Your task to perform on an android device: turn off priority inbox in the gmail app Image 0: 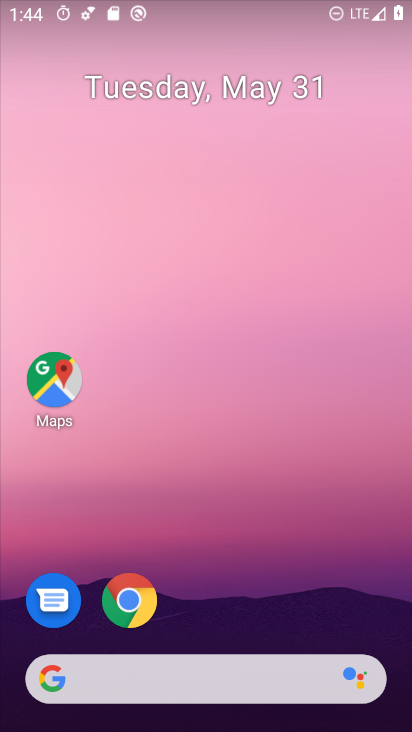
Step 0: drag from (199, 724) to (170, 211)
Your task to perform on an android device: turn off priority inbox in the gmail app Image 1: 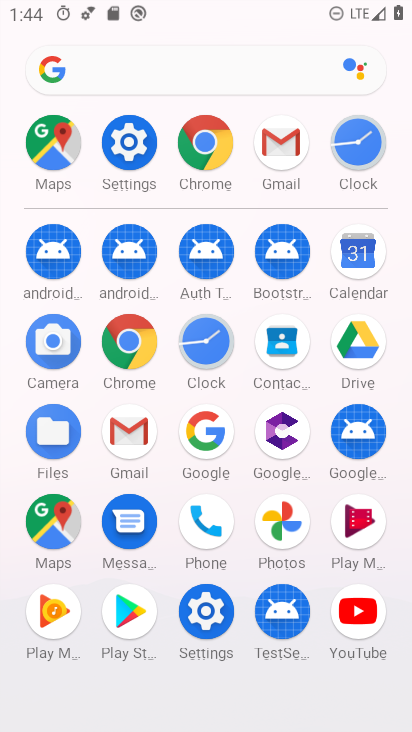
Step 1: click (122, 429)
Your task to perform on an android device: turn off priority inbox in the gmail app Image 2: 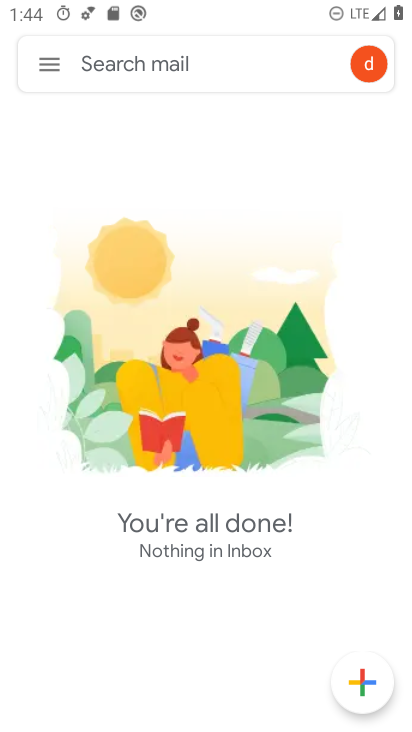
Step 2: click (46, 59)
Your task to perform on an android device: turn off priority inbox in the gmail app Image 3: 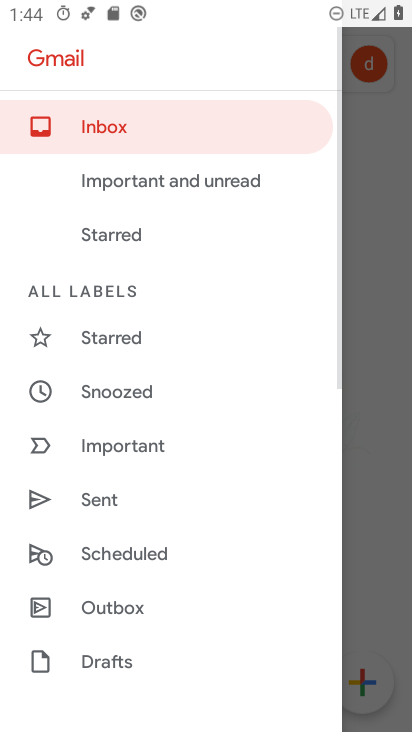
Step 3: drag from (125, 669) to (138, 234)
Your task to perform on an android device: turn off priority inbox in the gmail app Image 4: 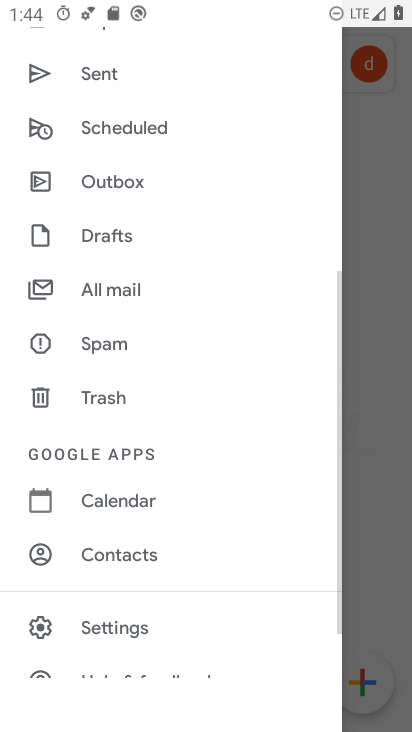
Step 4: drag from (154, 634) to (158, 313)
Your task to perform on an android device: turn off priority inbox in the gmail app Image 5: 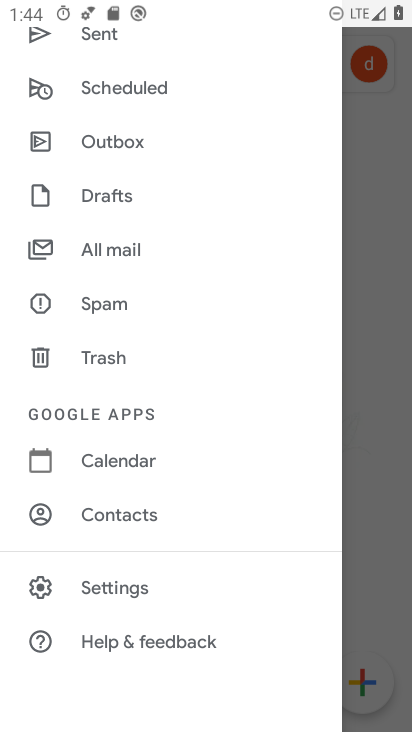
Step 5: click (108, 582)
Your task to perform on an android device: turn off priority inbox in the gmail app Image 6: 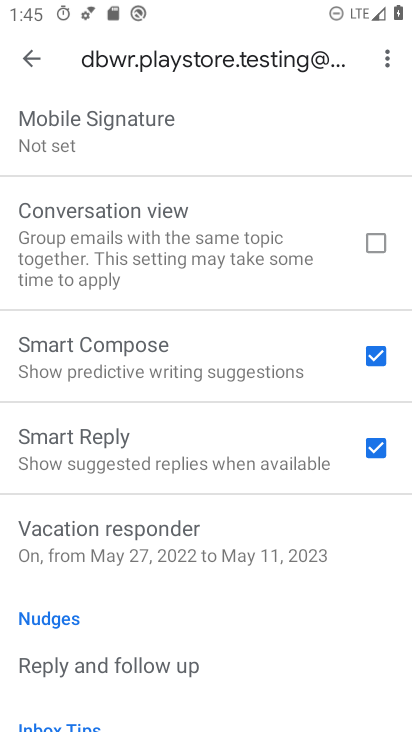
Step 6: drag from (179, 371) to (173, 145)
Your task to perform on an android device: turn off priority inbox in the gmail app Image 7: 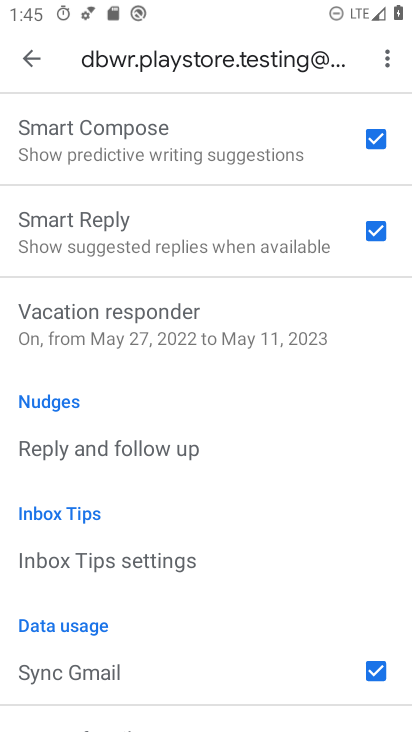
Step 7: drag from (161, 671) to (155, 577)
Your task to perform on an android device: turn off priority inbox in the gmail app Image 8: 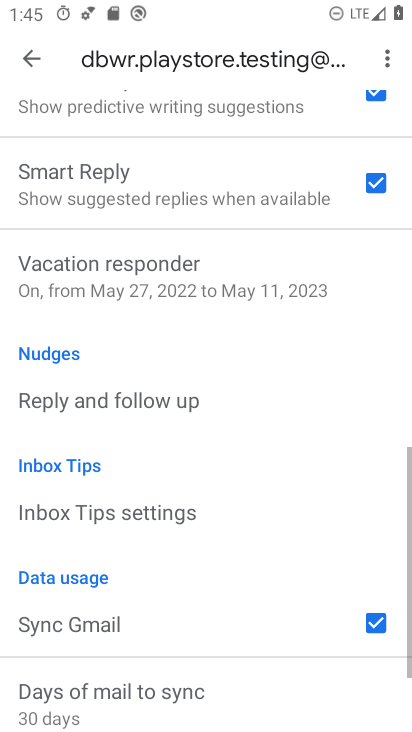
Step 8: click (154, 350)
Your task to perform on an android device: turn off priority inbox in the gmail app Image 9: 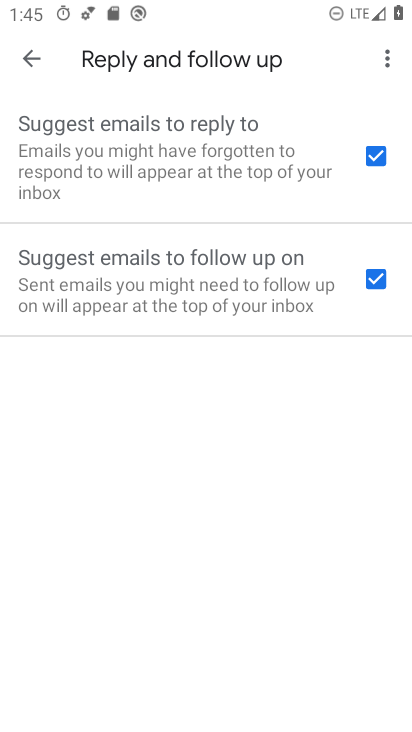
Step 9: click (23, 54)
Your task to perform on an android device: turn off priority inbox in the gmail app Image 10: 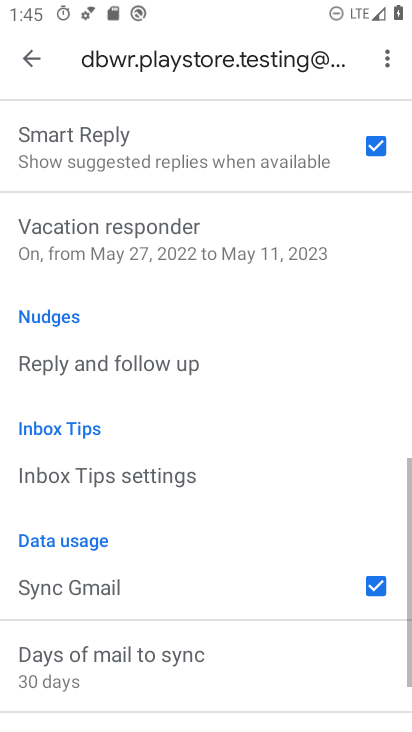
Step 10: drag from (160, 145) to (167, 547)
Your task to perform on an android device: turn off priority inbox in the gmail app Image 11: 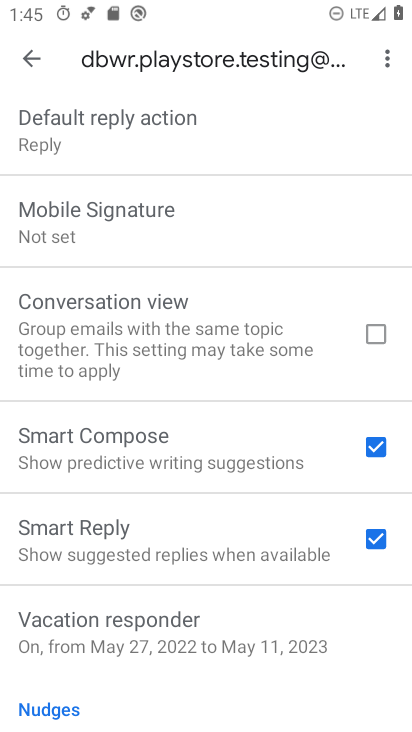
Step 11: drag from (207, 153) to (192, 656)
Your task to perform on an android device: turn off priority inbox in the gmail app Image 12: 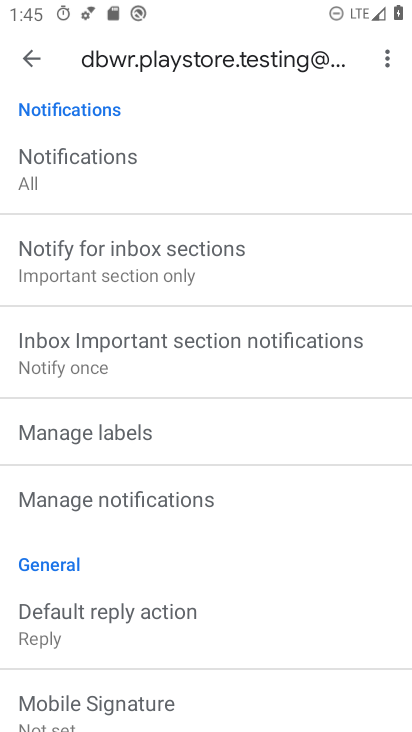
Step 12: drag from (255, 131) to (242, 561)
Your task to perform on an android device: turn off priority inbox in the gmail app Image 13: 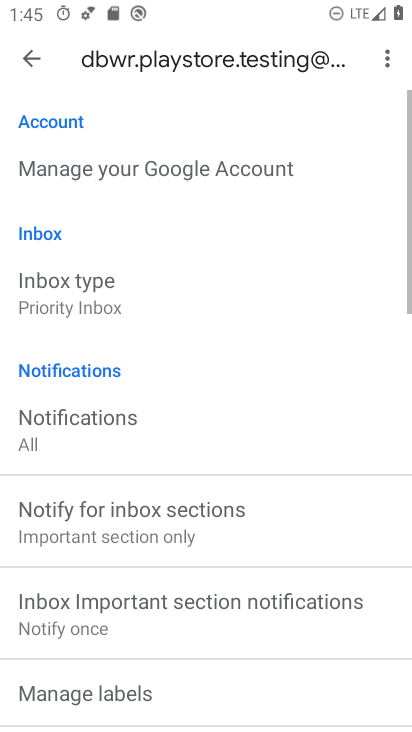
Step 13: click (88, 293)
Your task to perform on an android device: turn off priority inbox in the gmail app Image 14: 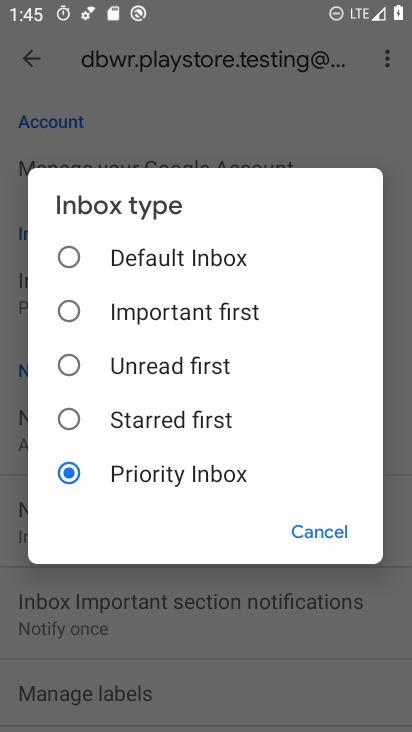
Step 14: click (73, 249)
Your task to perform on an android device: turn off priority inbox in the gmail app Image 15: 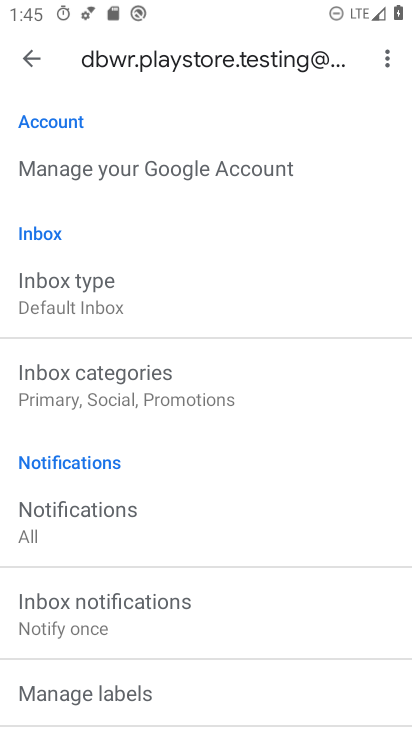
Step 15: task complete